Your task to perform on an android device: turn off sleep mode Image 0: 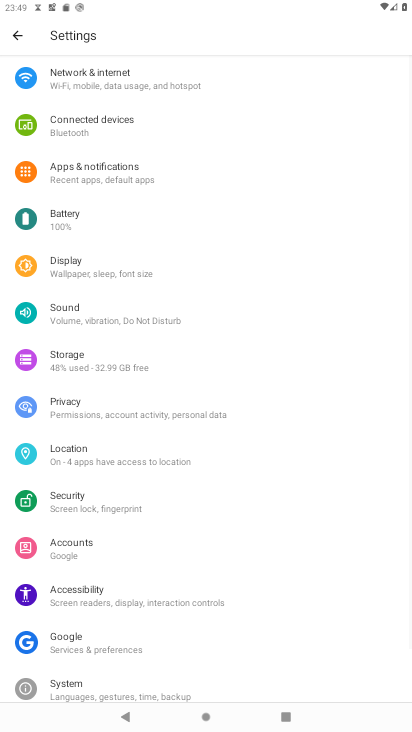
Step 0: drag from (201, 590) to (246, 313)
Your task to perform on an android device: turn off sleep mode Image 1: 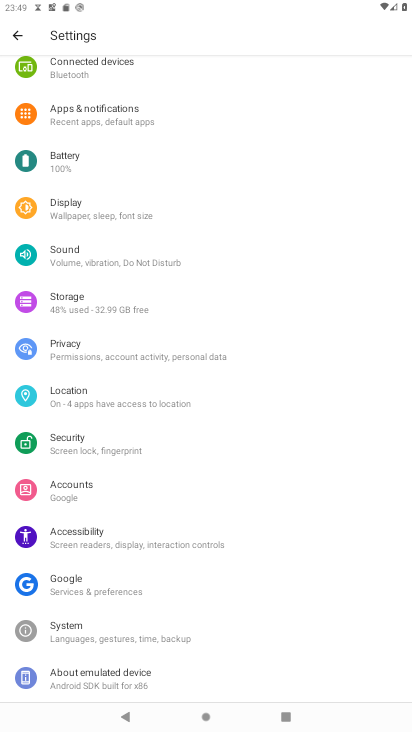
Step 1: task complete